Your task to perform on an android device: Open Google Chrome Image 0: 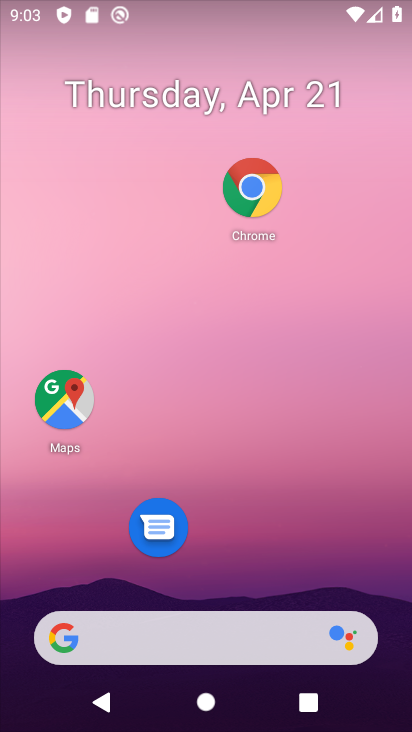
Step 0: click (261, 184)
Your task to perform on an android device: Open Google Chrome Image 1: 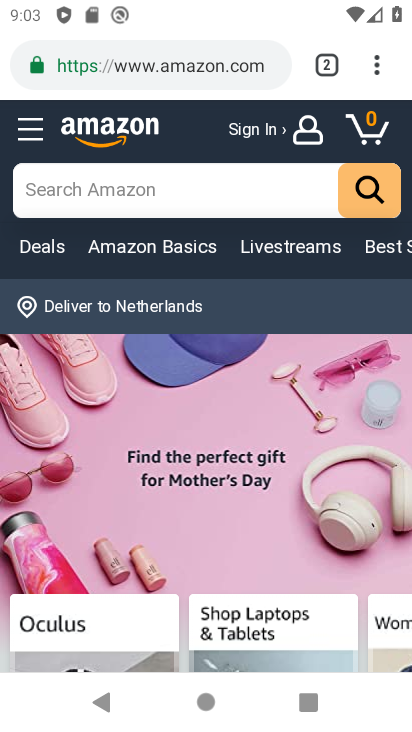
Step 1: task complete